Your task to perform on an android device: Go to accessibility settings Image 0: 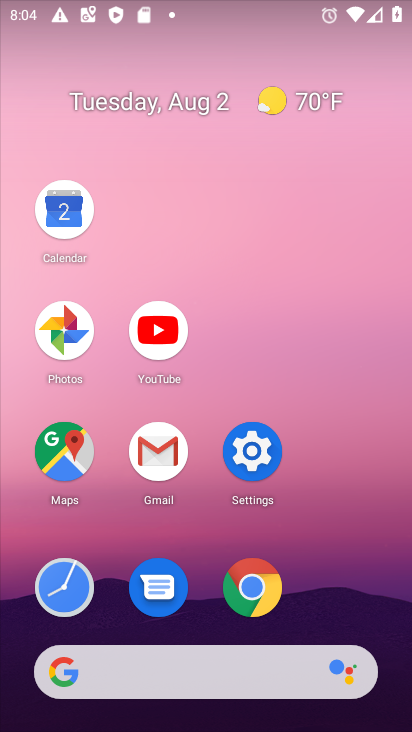
Step 0: click (246, 453)
Your task to perform on an android device: Go to accessibility settings Image 1: 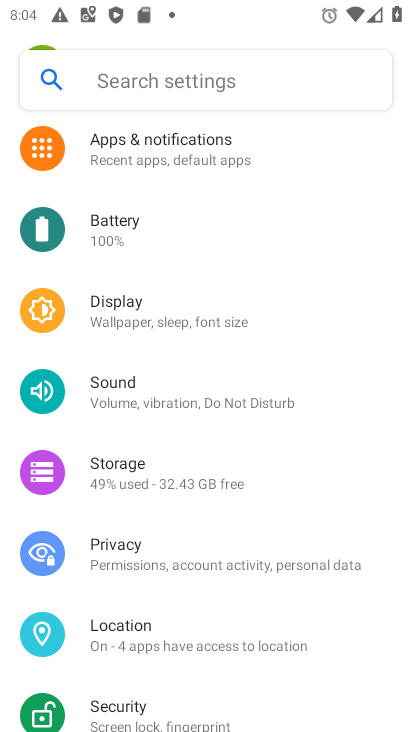
Step 1: drag from (214, 603) to (204, 5)
Your task to perform on an android device: Go to accessibility settings Image 2: 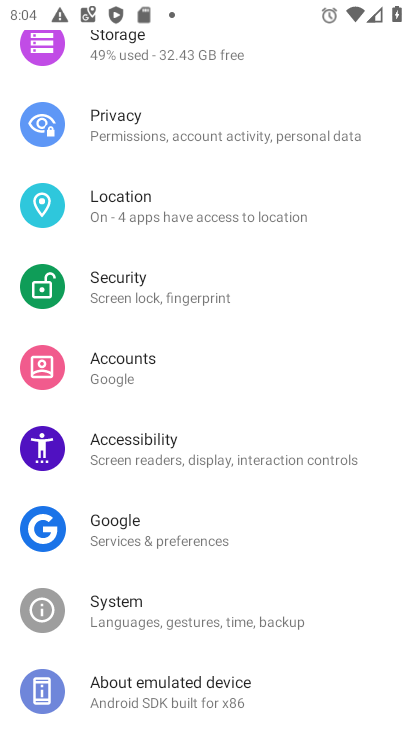
Step 2: drag from (242, 278) to (223, 387)
Your task to perform on an android device: Go to accessibility settings Image 3: 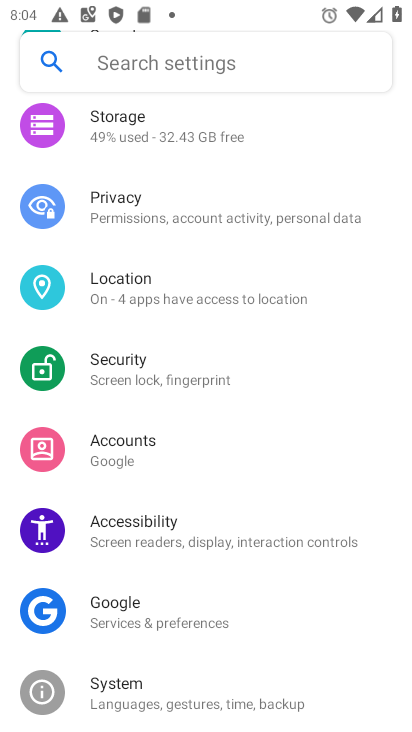
Step 3: click (137, 521)
Your task to perform on an android device: Go to accessibility settings Image 4: 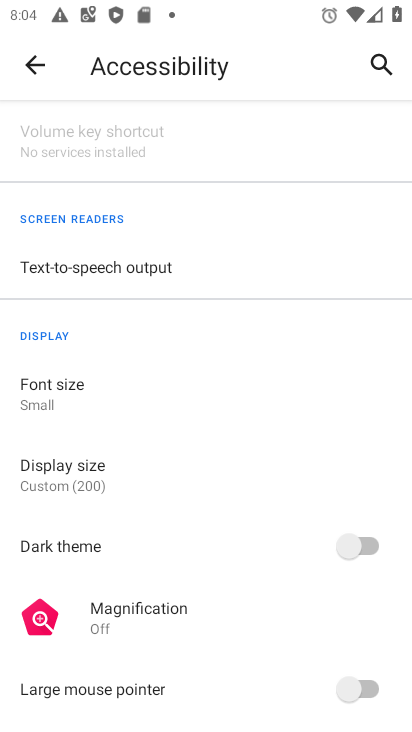
Step 4: task complete